Your task to perform on an android device: Open location settings Image 0: 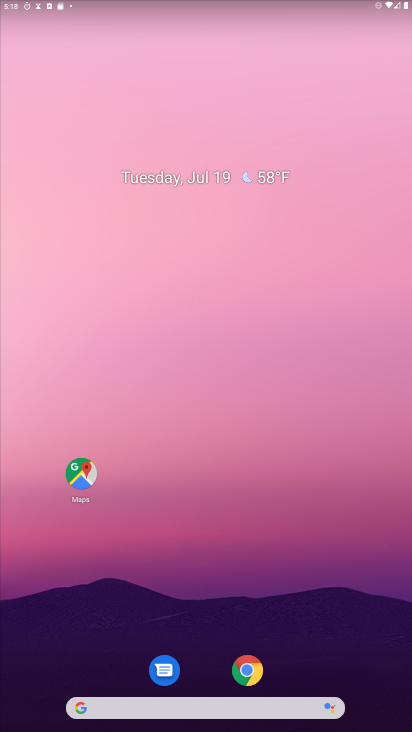
Step 0: drag from (268, 681) to (322, 12)
Your task to perform on an android device: Open location settings Image 1: 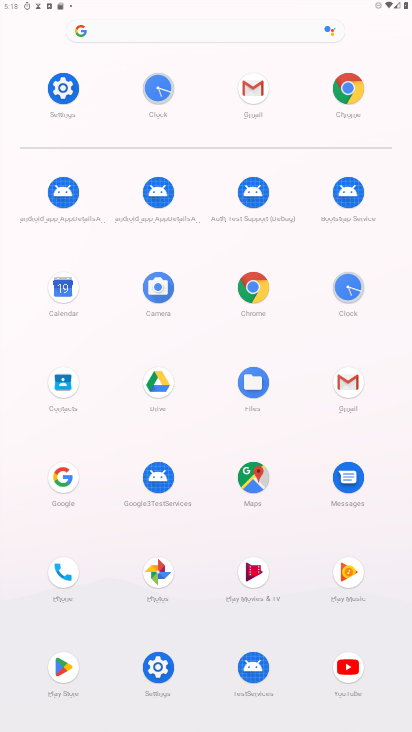
Step 1: click (163, 666)
Your task to perform on an android device: Open location settings Image 2: 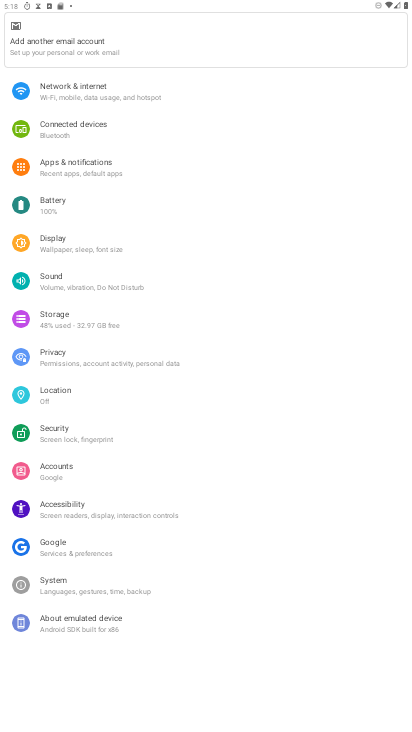
Step 2: click (65, 363)
Your task to perform on an android device: Open location settings Image 3: 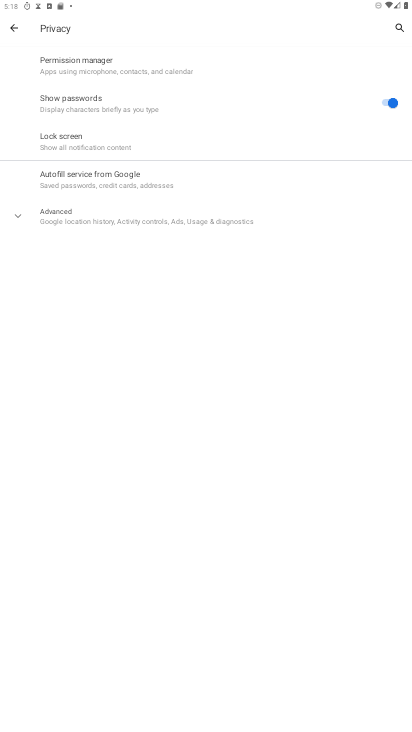
Step 3: task complete